Your task to perform on an android device: Open CNN.com Image 0: 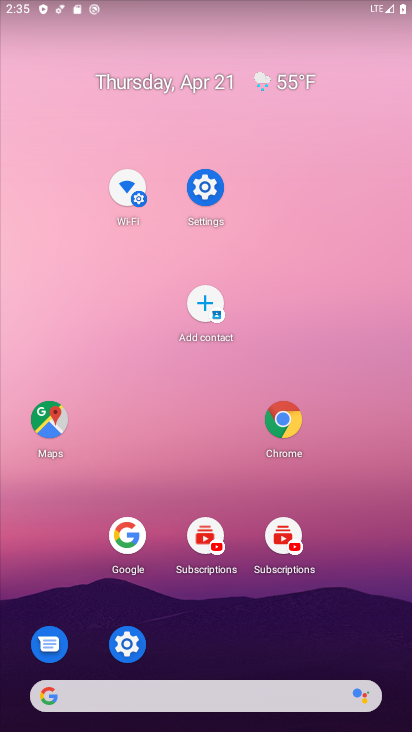
Step 0: drag from (304, 706) to (193, 152)
Your task to perform on an android device: Open CNN.com Image 1: 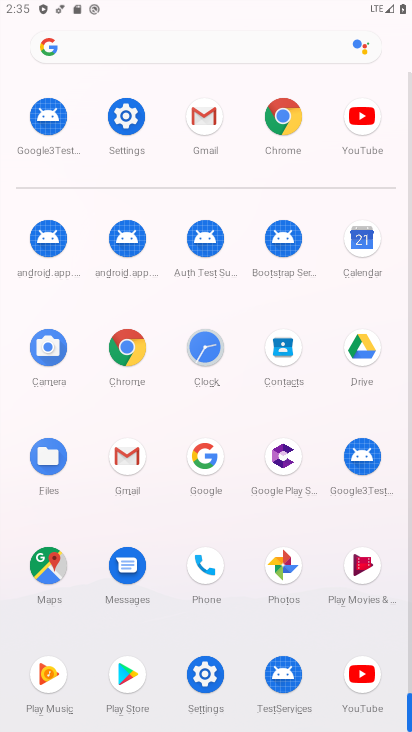
Step 1: click (124, 117)
Your task to perform on an android device: Open CNN.com Image 2: 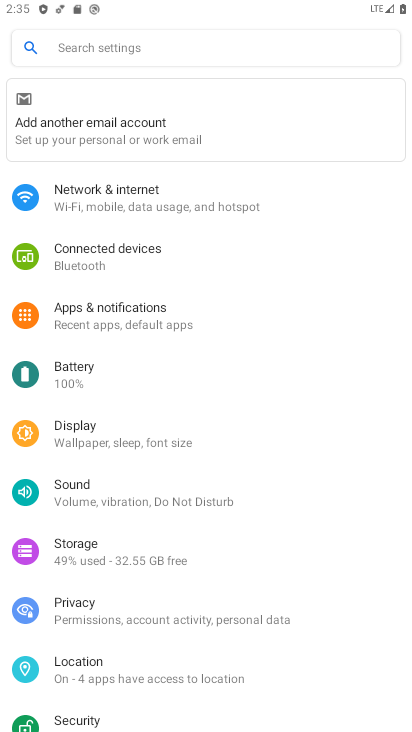
Step 2: press home button
Your task to perform on an android device: Open CNN.com Image 3: 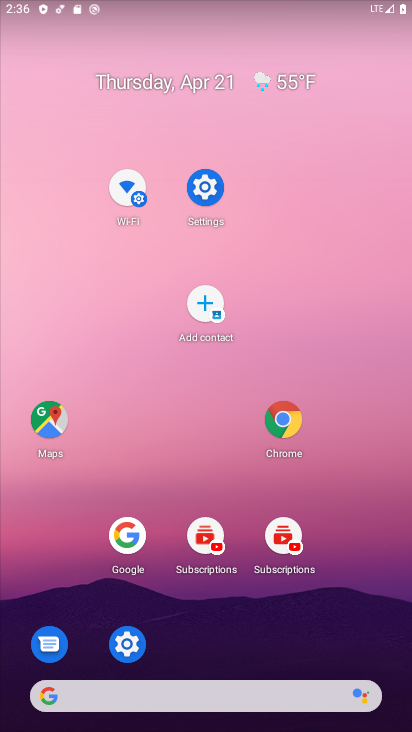
Step 3: drag from (366, 638) to (172, 7)
Your task to perform on an android device: Open CNN.com Image 4: 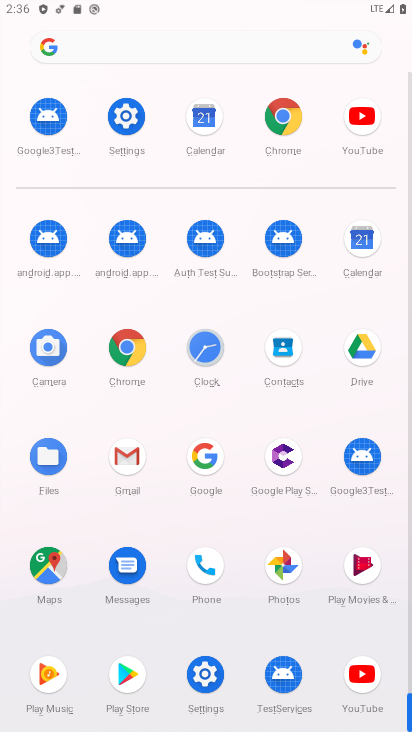
Step 4: click (290, 114)
Your task to perform on an android device: Open CNN.com Image 5: 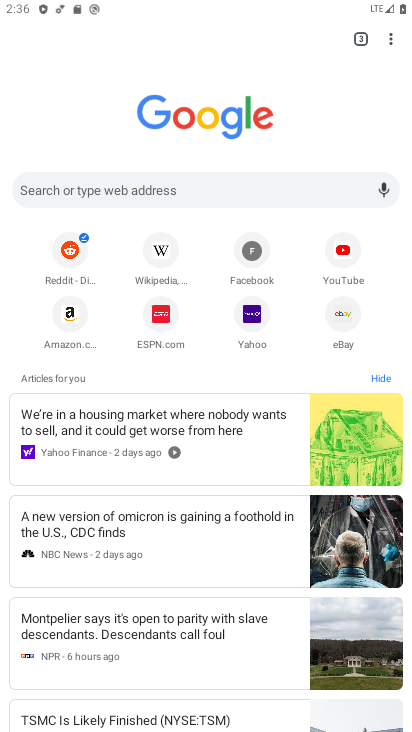
Step 5: click (38, 182)
Your task to perform on an android device: Open CNN.com Image 6: 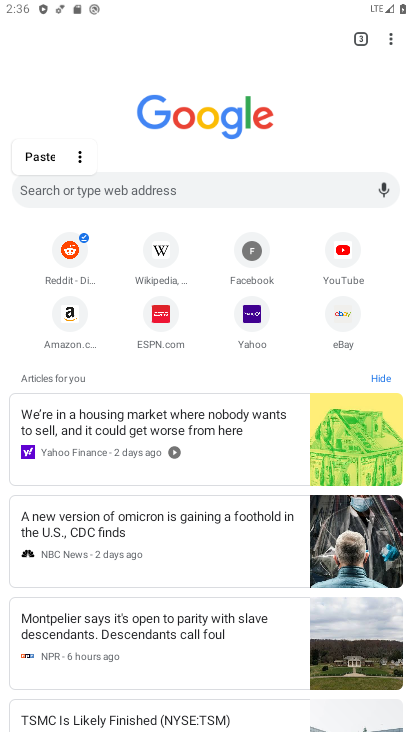
Step 6: click (56, 185)
Your task to perform on an android device: Open CNN.com Image 7: 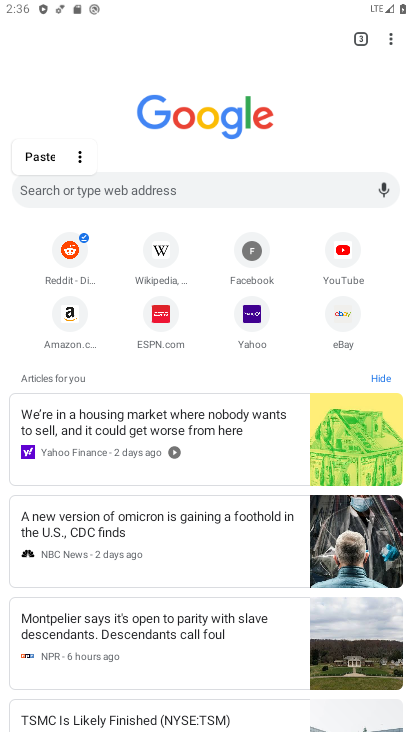
Step 7: type "www.cnn.com"
Your task to perform on an android device: Open CNN.com Image 8: 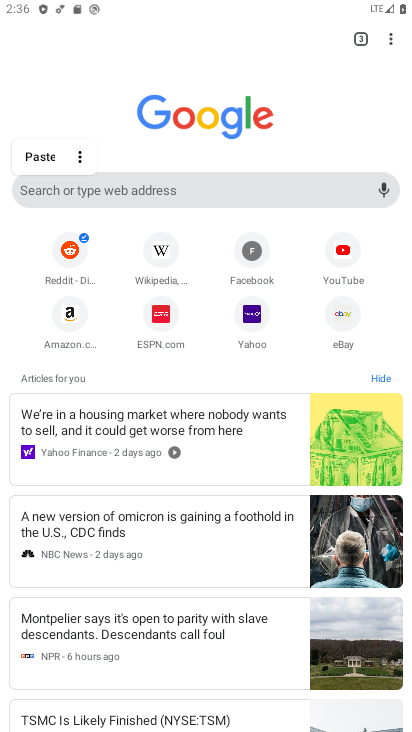
Step 8: click (187, 191)
Your task to perform on an android device: Open CNN.com Image 9: 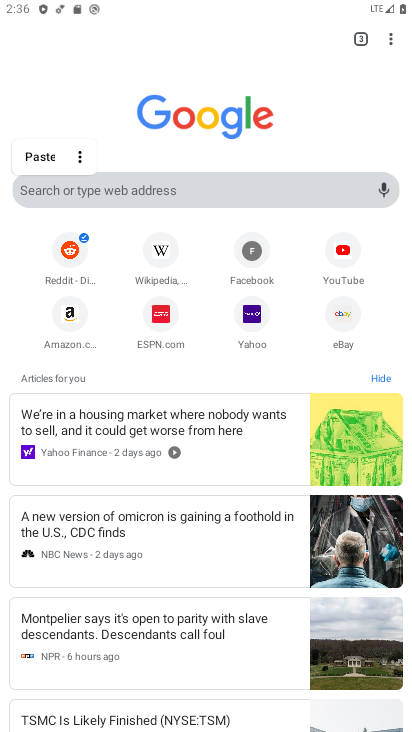
Step 9: click (187, 191)
Your task to perform on an android device: Open CNN.com Image 10: 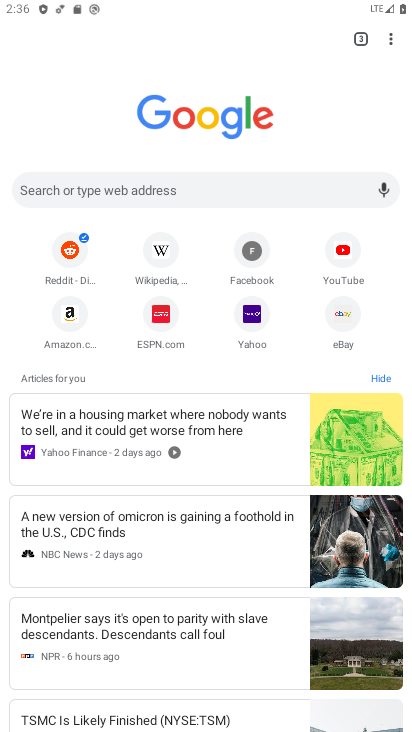
Step 10: click (123, 181)
Your task to perform on an android device: Open CNN.com Image 11: 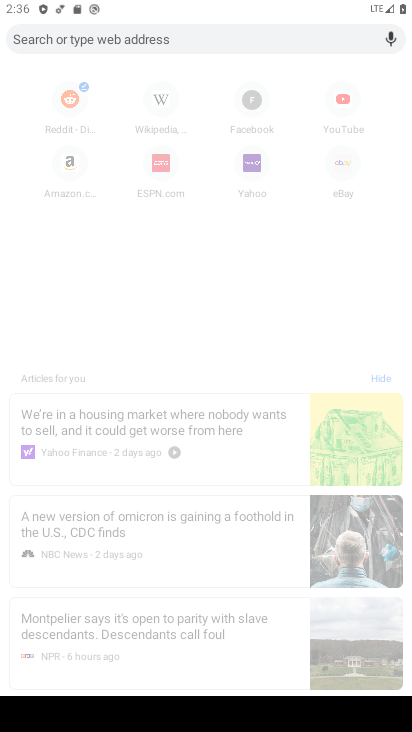
Step 11: type "www.cnn.com"
Your task to perform on an android device: Open CNN.com Image 12: 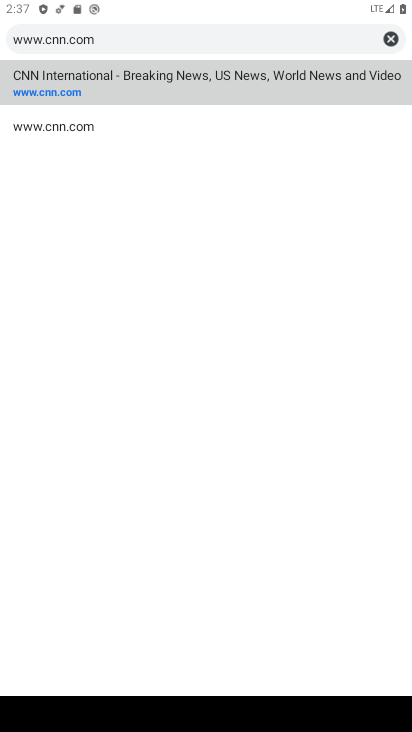
Step 12: click (163, 81)
Your task to perform on an android device: Open CNN.com Image 13: 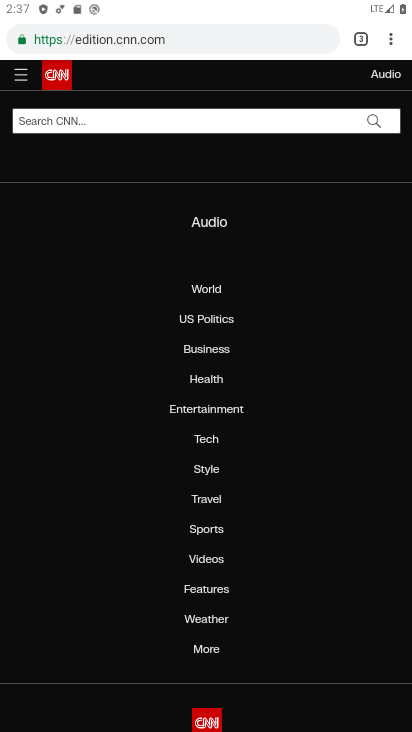
Step 13: task complete